Your task to perform on an android device: all mails in gmail Image 0: 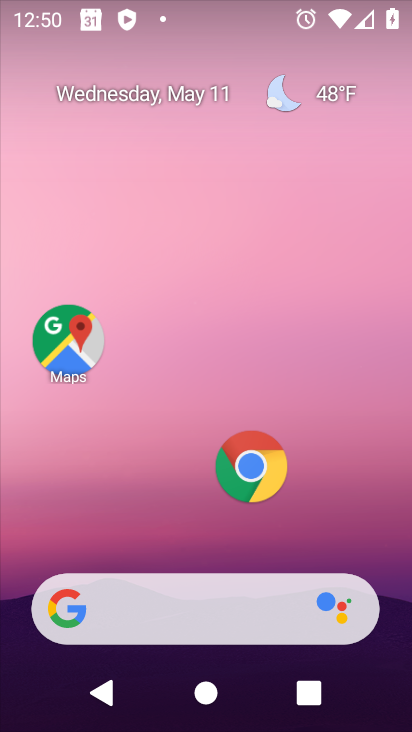
Step 0: drag from (129, 475) to (242, 80)
Your task to perform on an android device: all mails in gmail Image 1: 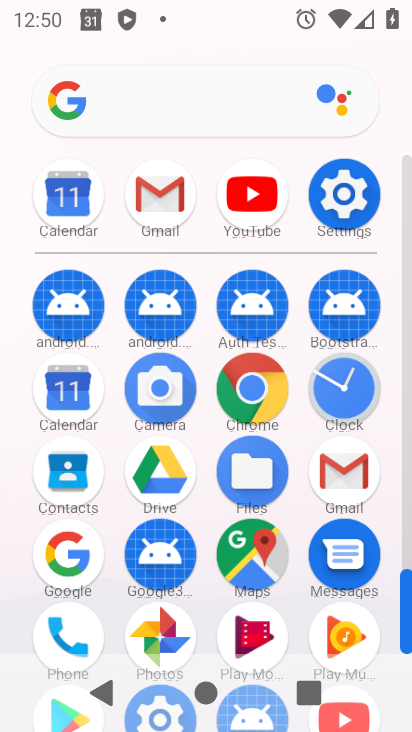
Step 1: click (175, 194)
Your task to perform on an android device: all mails in gmail Image 2: 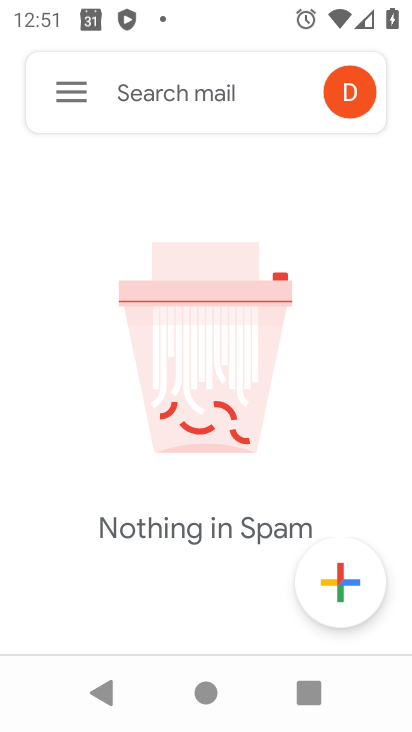
Step 2: click (68, 95)
Your task to perform on an android device: all mails in gmail Image 3: 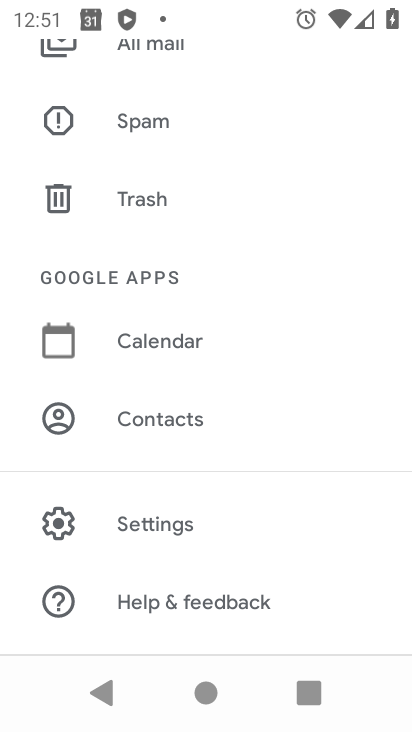
Step 3: click (153, 53)
Your task to perform on an android device: all mails in gmail Image 4: 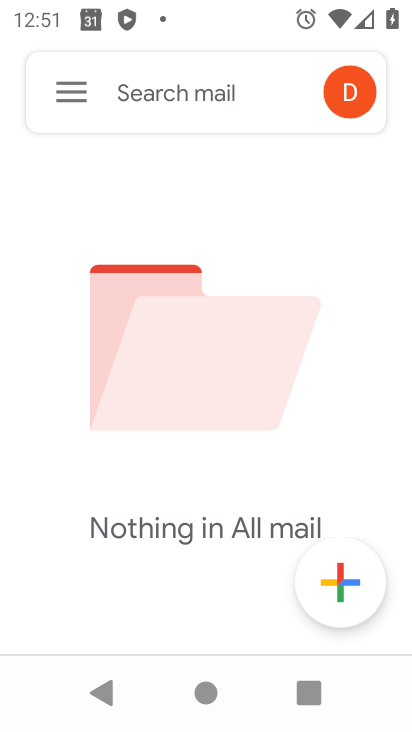
Step 4: task complete